Your task to perform on an android device: open app "Pinterest" Image 0: 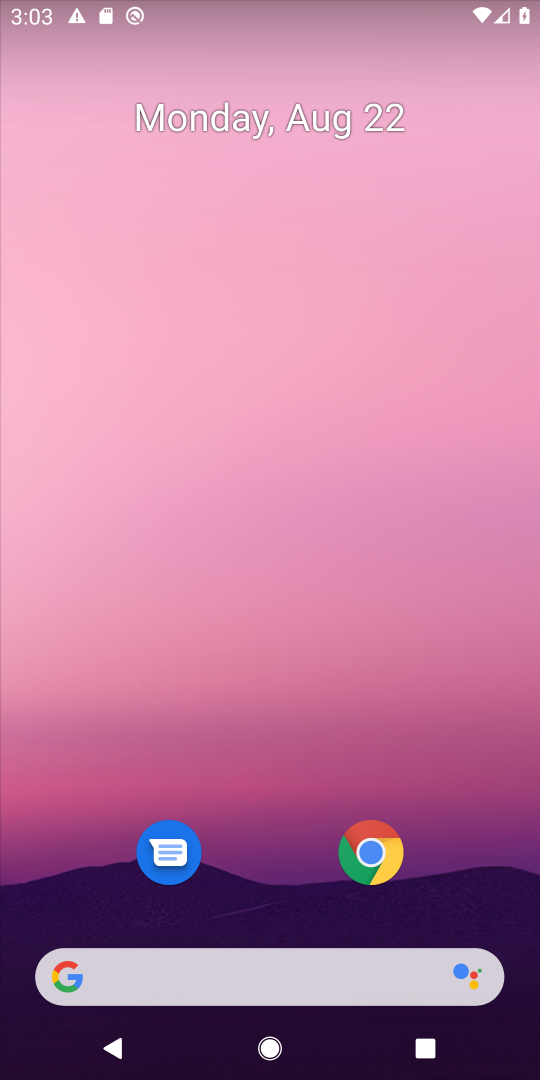
Step 0: drag from (282, 878) to (298, 85)
Your task to perform on an android device: open app "Pinterest" Image 1: 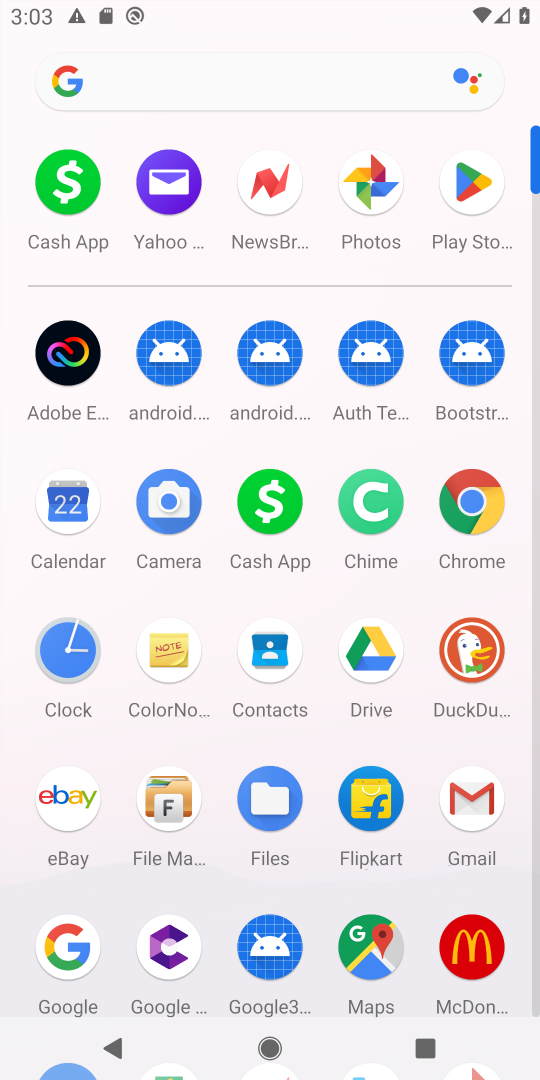
Step 1: click (470, 178)
Your task to perform on an android device: open app "Pinterest" Image 2: 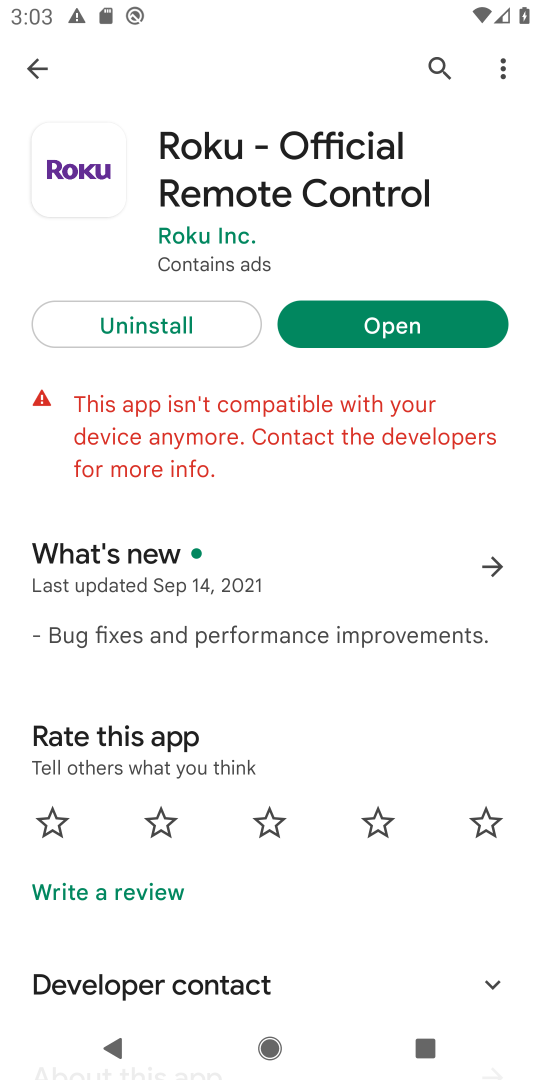
Step 2: click (438, 68)
Your task to perform on an android device: open app "Pinterest" Image 3: 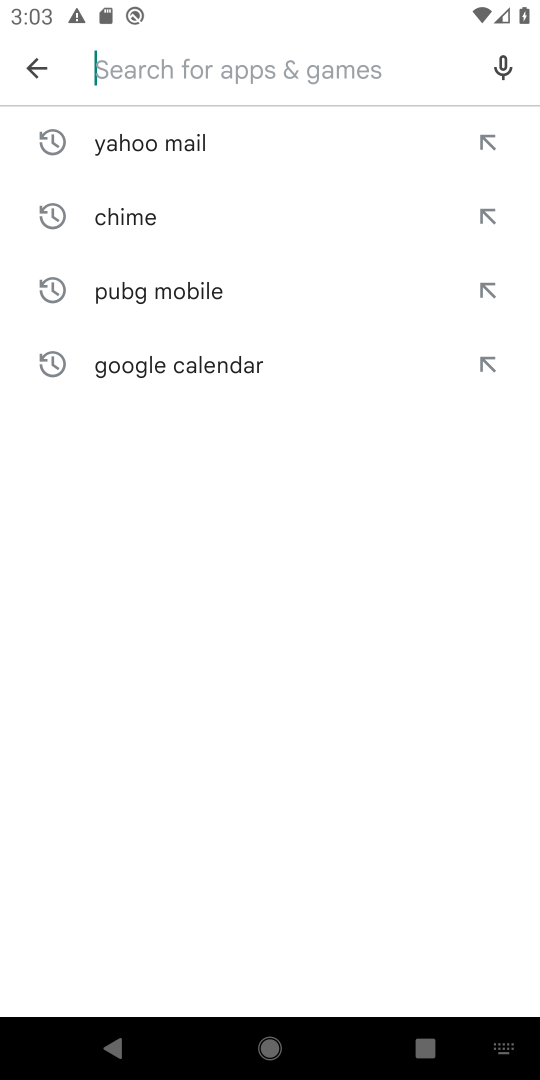
Step 3: type "Pinterest"
Your task to perform on an android device: open app "Pinterest" Image 4: 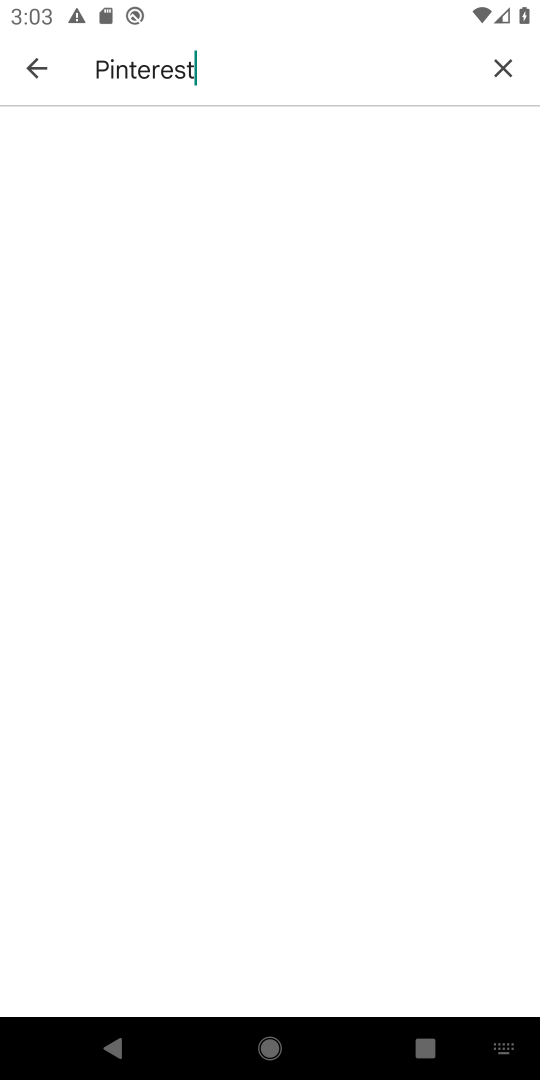
Step 4: click (96, 66)
Your task to perform on an android device: open app "Pinterest" Image 5: 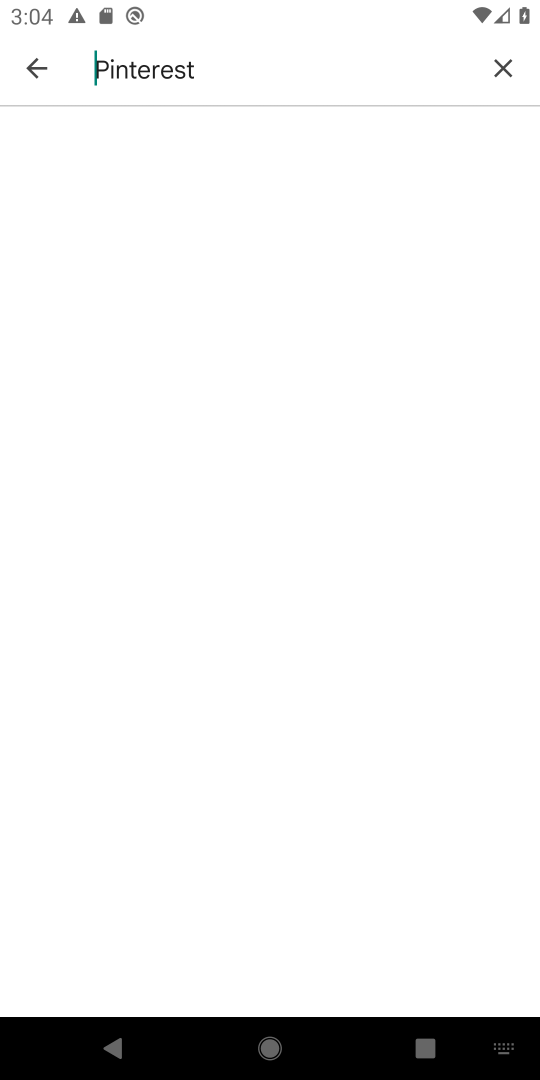
Step 5: click (40, 63)
Your task to perform on an android device: open app "Pinterest" Image 6: 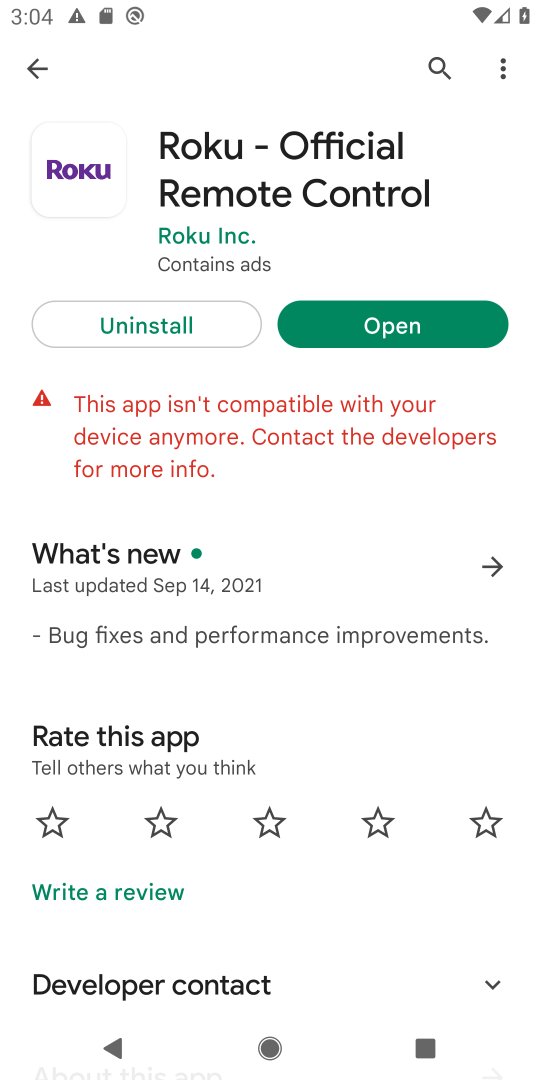
Step 6: click (442, 57)
Your task to perform on an android device: open app "Pinterest" Image 7: 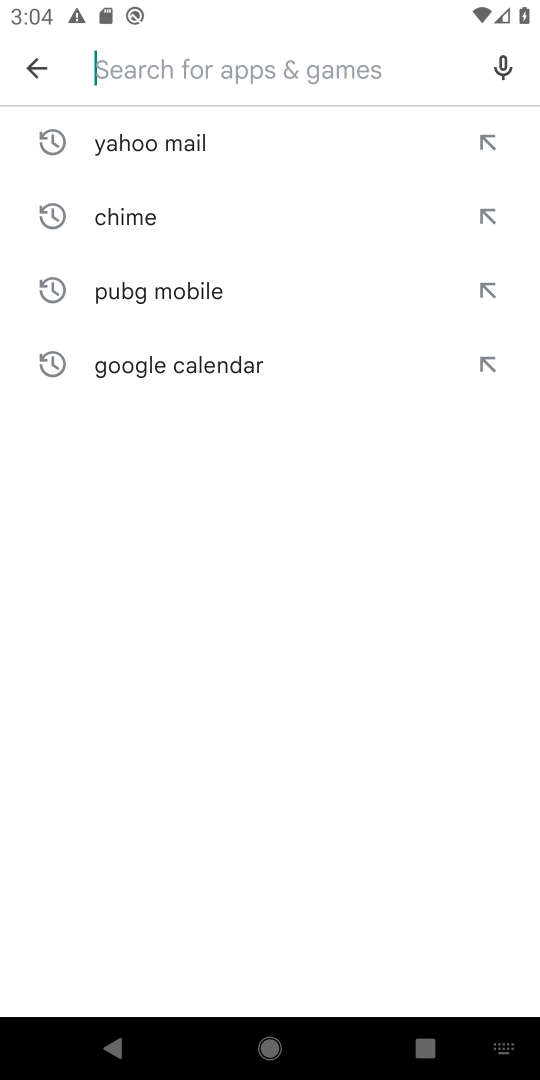
Step 7: type "Printerest"
Your task to perform on an android device: open app "Pinterest" Image 8: 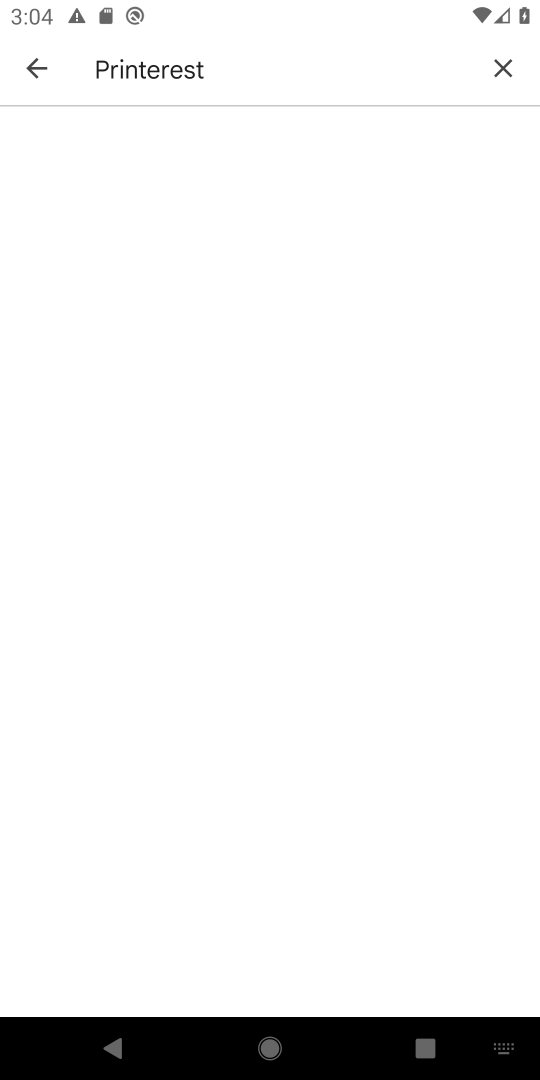
Step 8: task complete